Your task to perform on an android device: allow cookies in the chrome app Image 0: 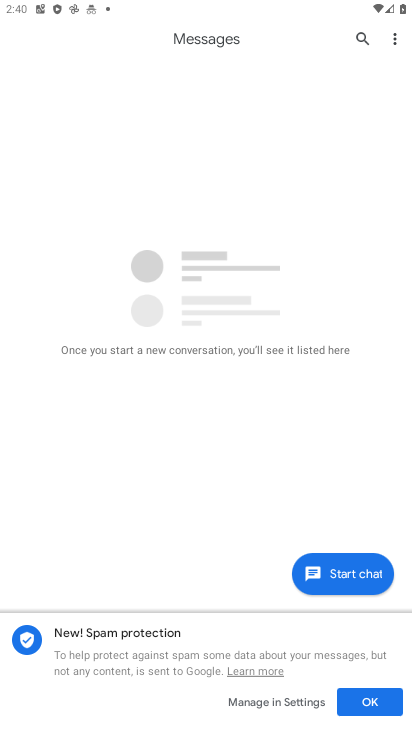
Step 0: task complete